Your task to perform on an android device: What's on my calendar today? Image 0: 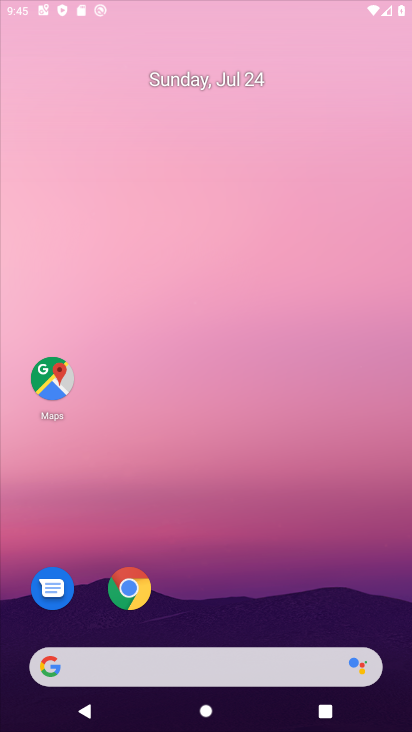
Step 0: drag from (242, 286) to (257, 66)
Your task to perform on an android device: What's on my calendar today? Image 1: 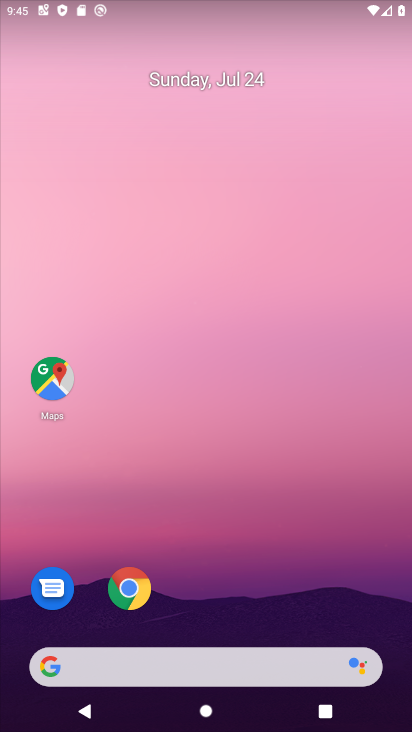
Step 1: drag from (264, 656) to (227, 138)
Your task to perform on an android device: What's on my calendar today? Image 2: 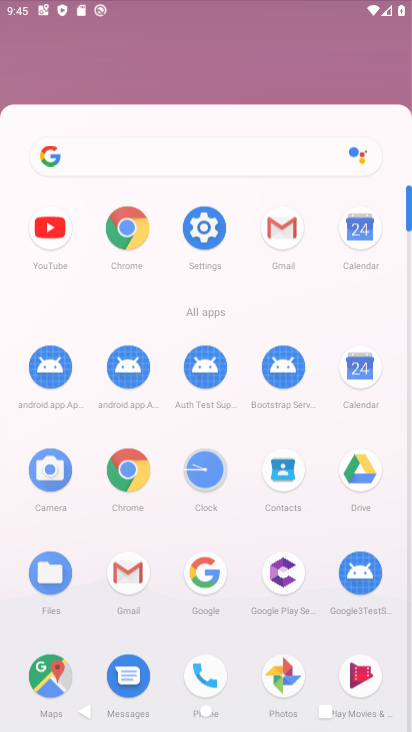
Step 2: drag from (196, 534) to (267, 169)
Your task to perform on an android device: What's on my calendar today? Image 3: 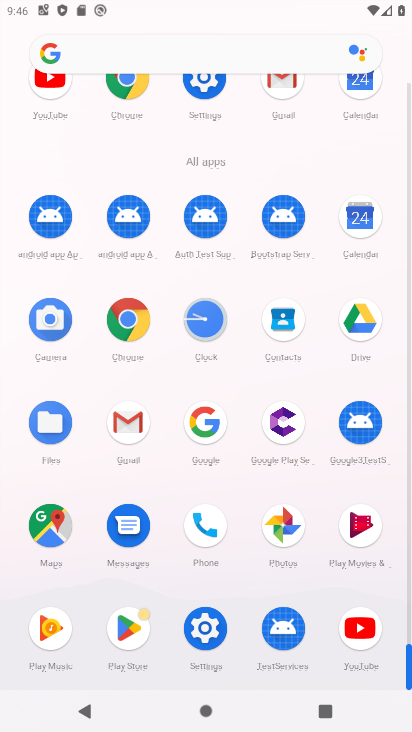
Step 3: click (352, 201)
Your task to perform on an android device: What's on my calendar today? Image 4: 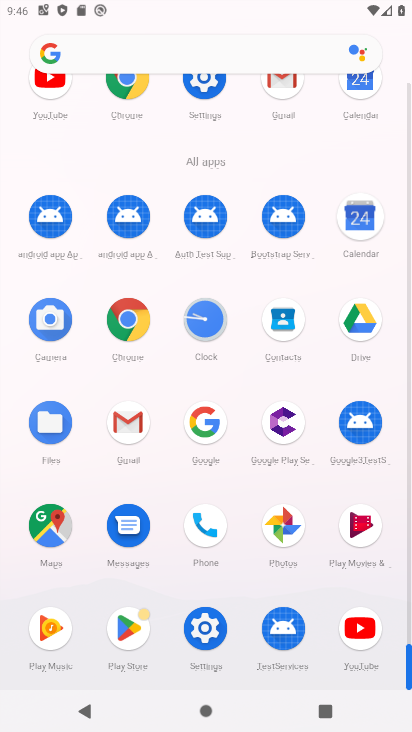
Step 4: click (353, 200)
Your task to perform on an android device: What's on my calendar today? Image 5: 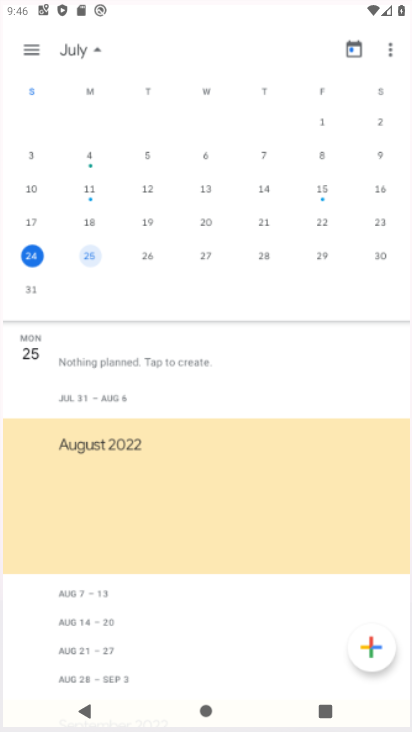
Step 5: click (353, 200)
Your task to perform on an android device: What's on my calendar today? Image 6: 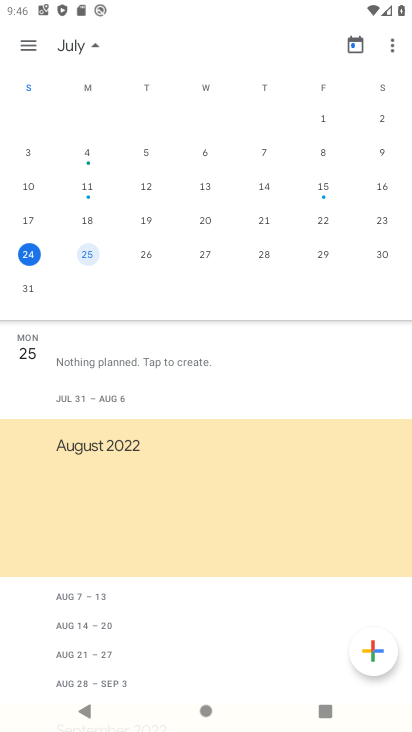
Step 6: click (87, 250)
Your task to perform on an android device: What's on my calendar today? Image 7: 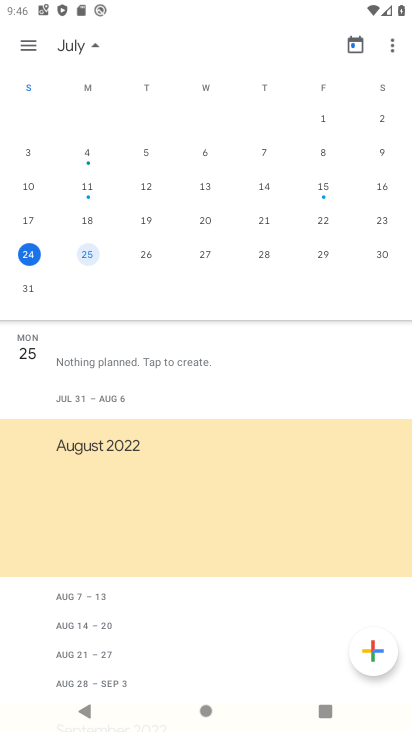
Step 7: click (87, 250)
Your task to perform on an android device: What's on my calendar today? Image 8: 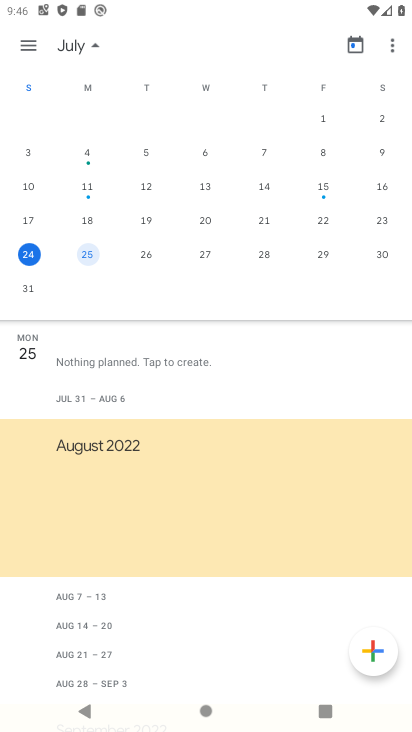
Step 8: click (89, 249)
Your task to perform on an android device: What's on my calendar today? Image 9: 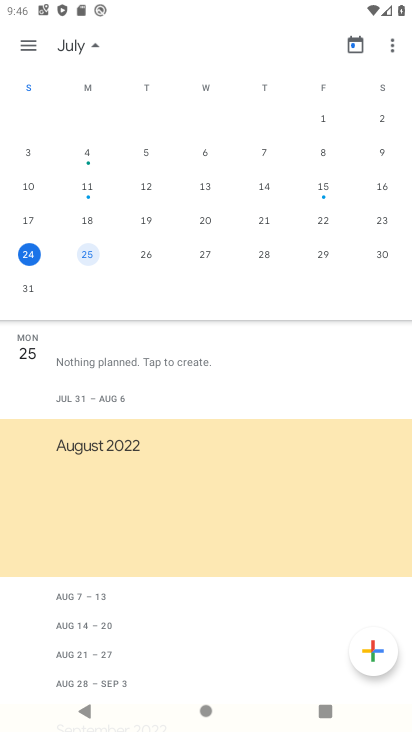
Step 9: task complete